Your task to perform on an android device: turn on wifi Image 0: 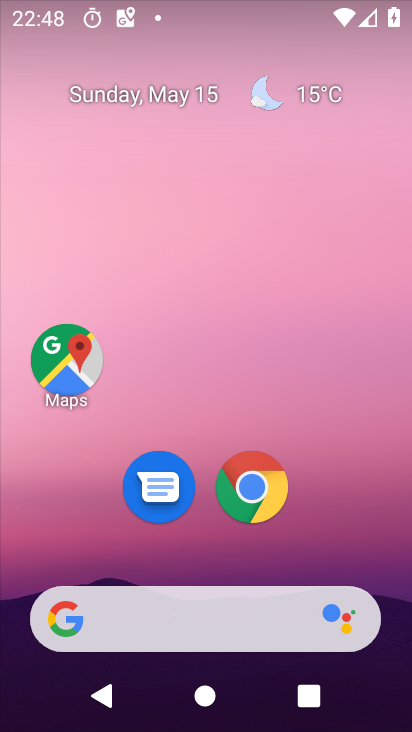
Step 0: drag from (318, 698) to (353, 51)
Your task to perform on an android device: turn on wifi Image 1: 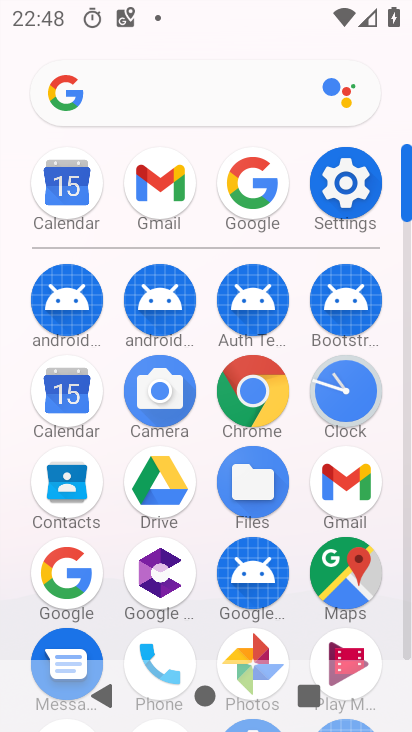
Step 1: click (350, 201)
Your task to perform on an android device: turn on wifi Image 2: 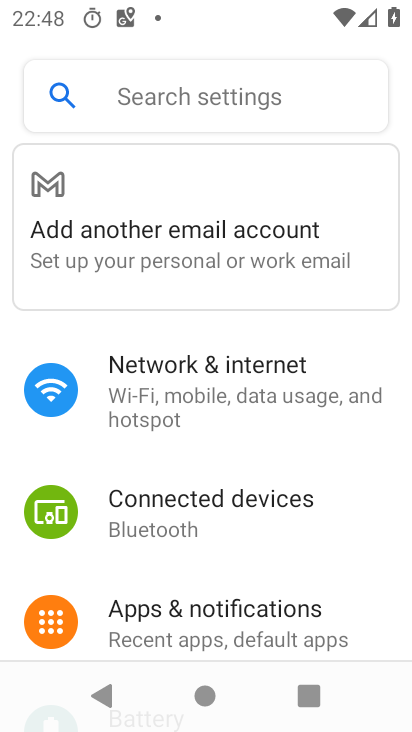
Step 2: drag from (237, 603) to (263, 251)
Your task to perform on an android device: turn on wifi Image 3: 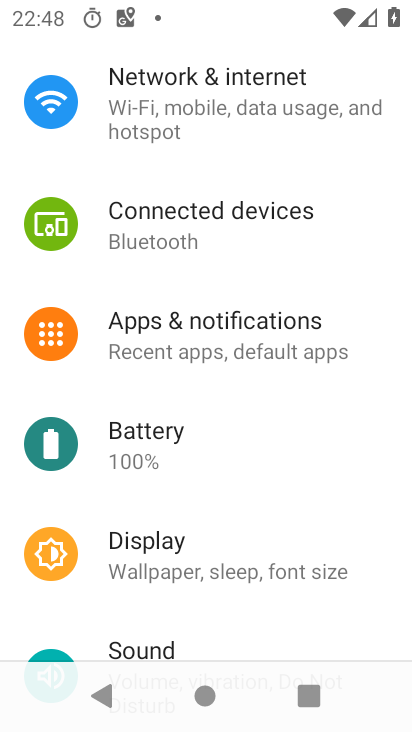
Step 3: click (245, 72)
Your task to perform on an android device: turn on wifi Image 4: 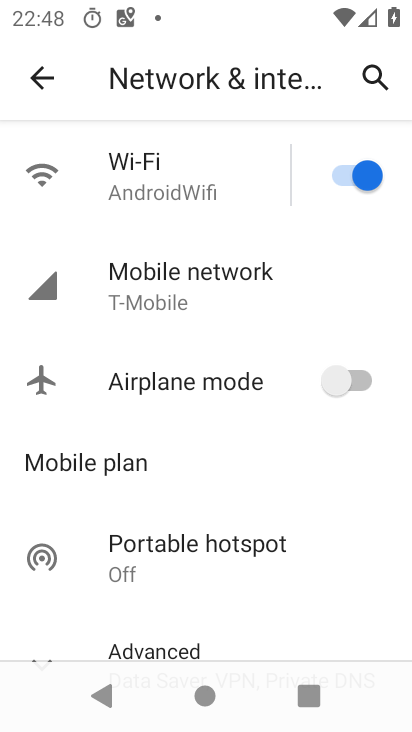
Step 4: task complete